Your task to perform on an android device: Show the shopping cart on newegg.com. Add macbook pro to the cart on newegg.com, then select checkout. Image 0: 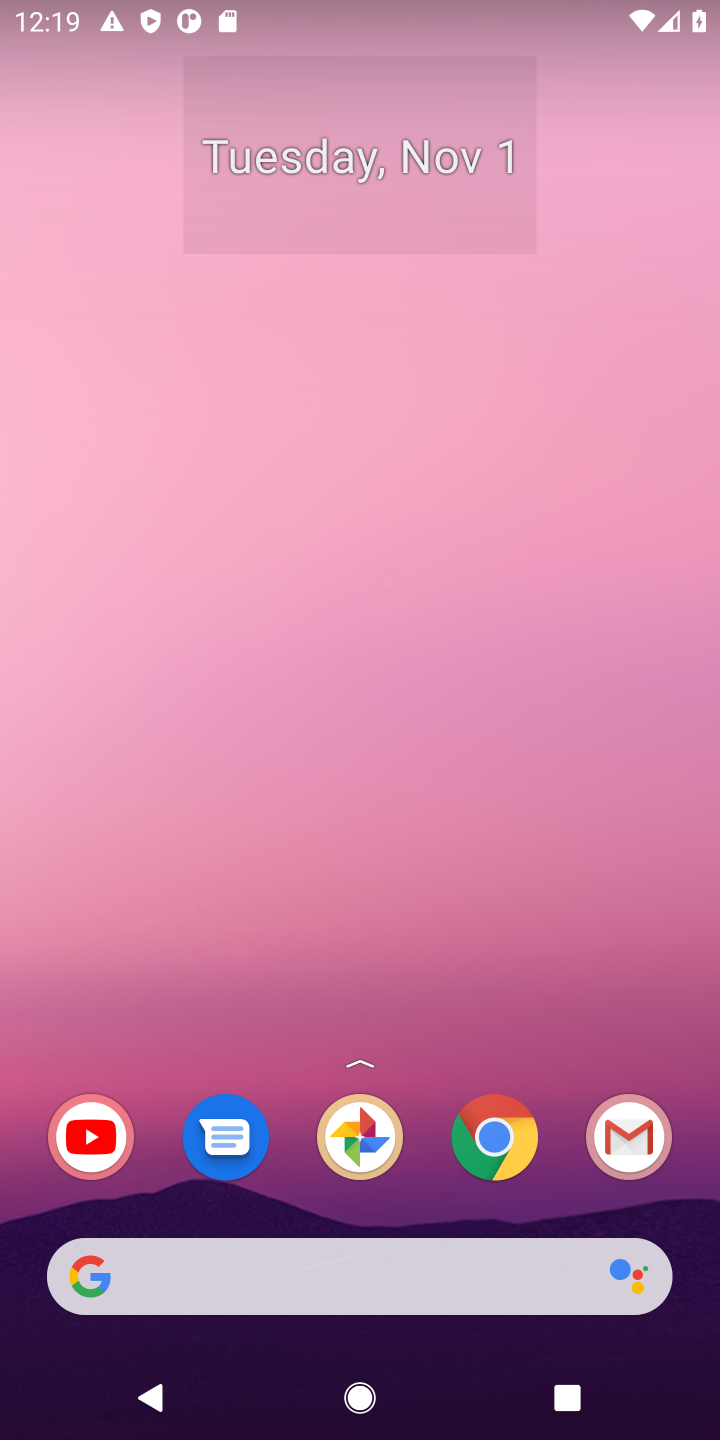
Step 0: click (513, 1144)
Your task to perform on an android device: Show the shopping cart on newegg.com. Add macbook pro to the cart on newegg.com, then select checkout. Image 1: 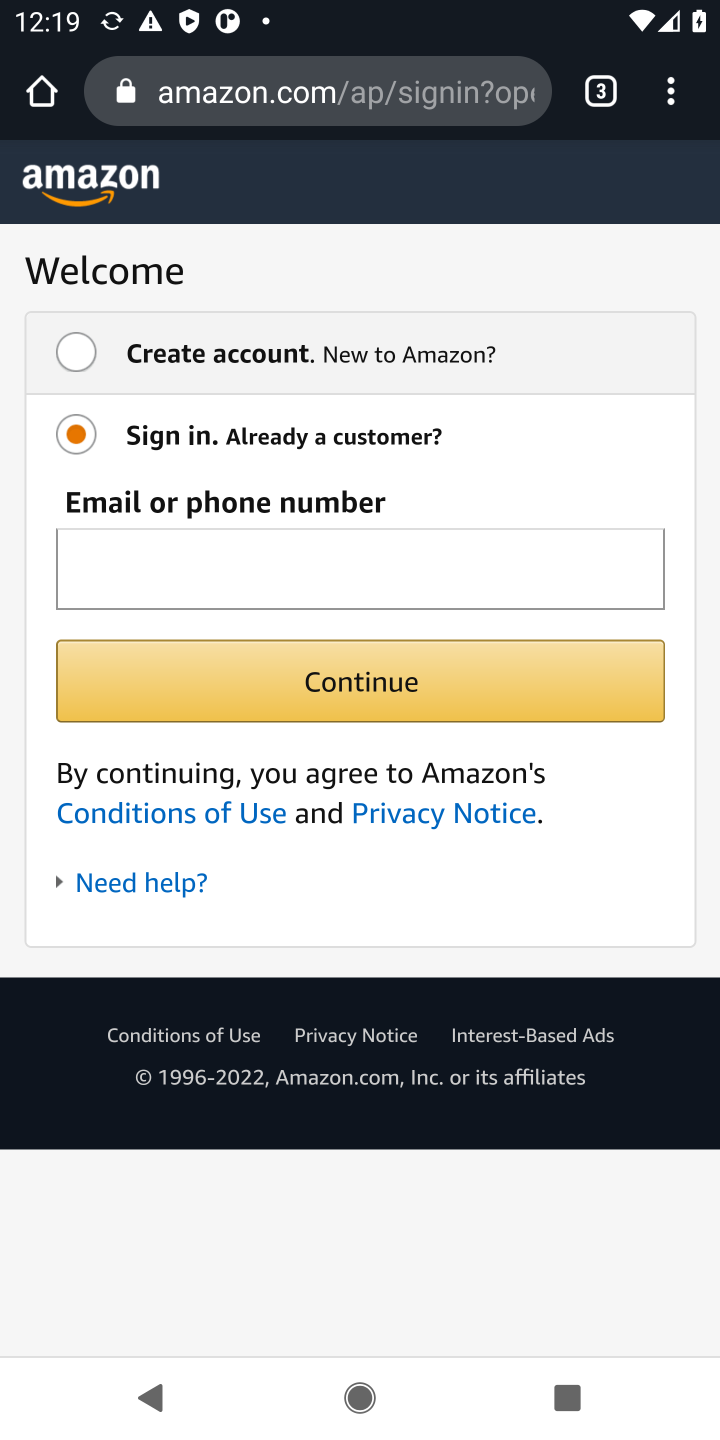
Step 1: click (617, 95)
Your task to perform on an android device: Show the shopping cart on newegg.com. Add macbook pro to the cart on newegg.com, then select checkout. Image 2: 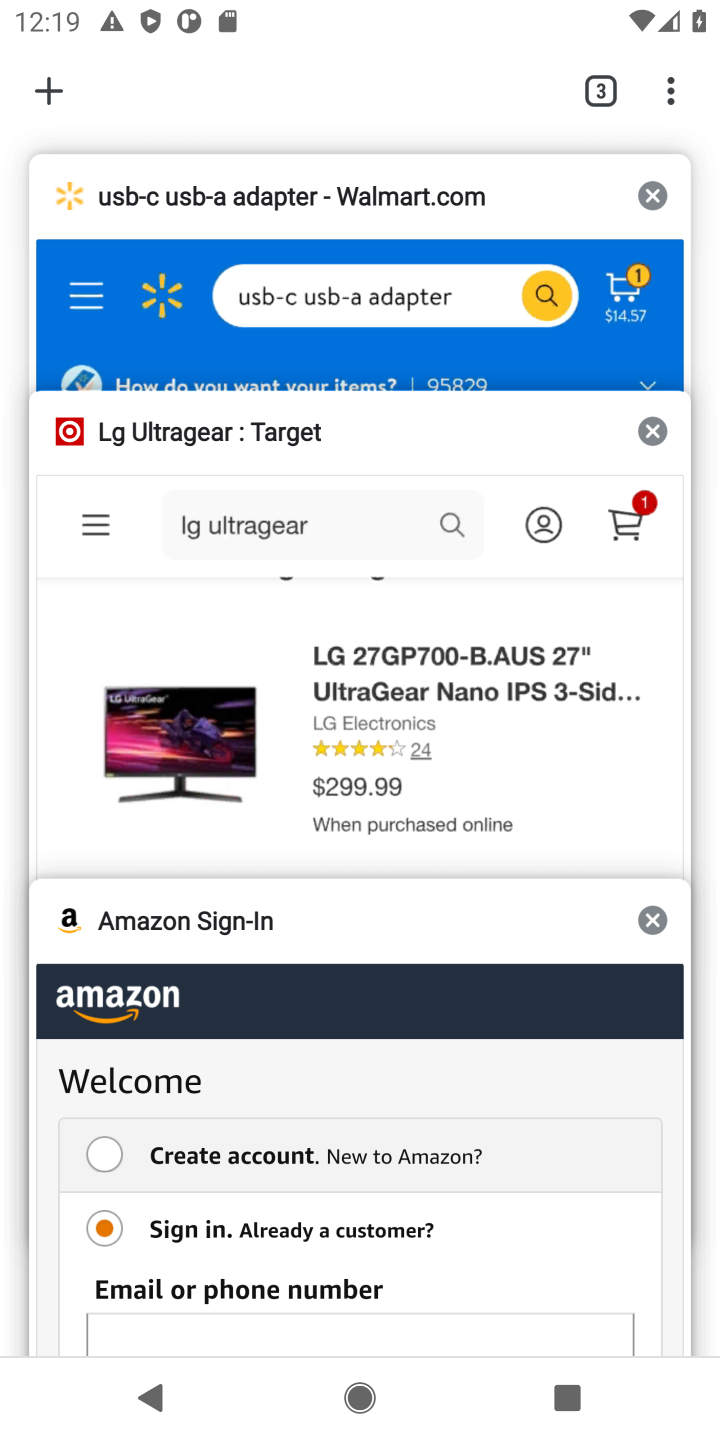
Step 2: click (40, 95)
Your task to perform on an android device: Show the shopping cart on newegg.com. Add macbook pro to the cart on newegg.com, then select checkout. Image 3: 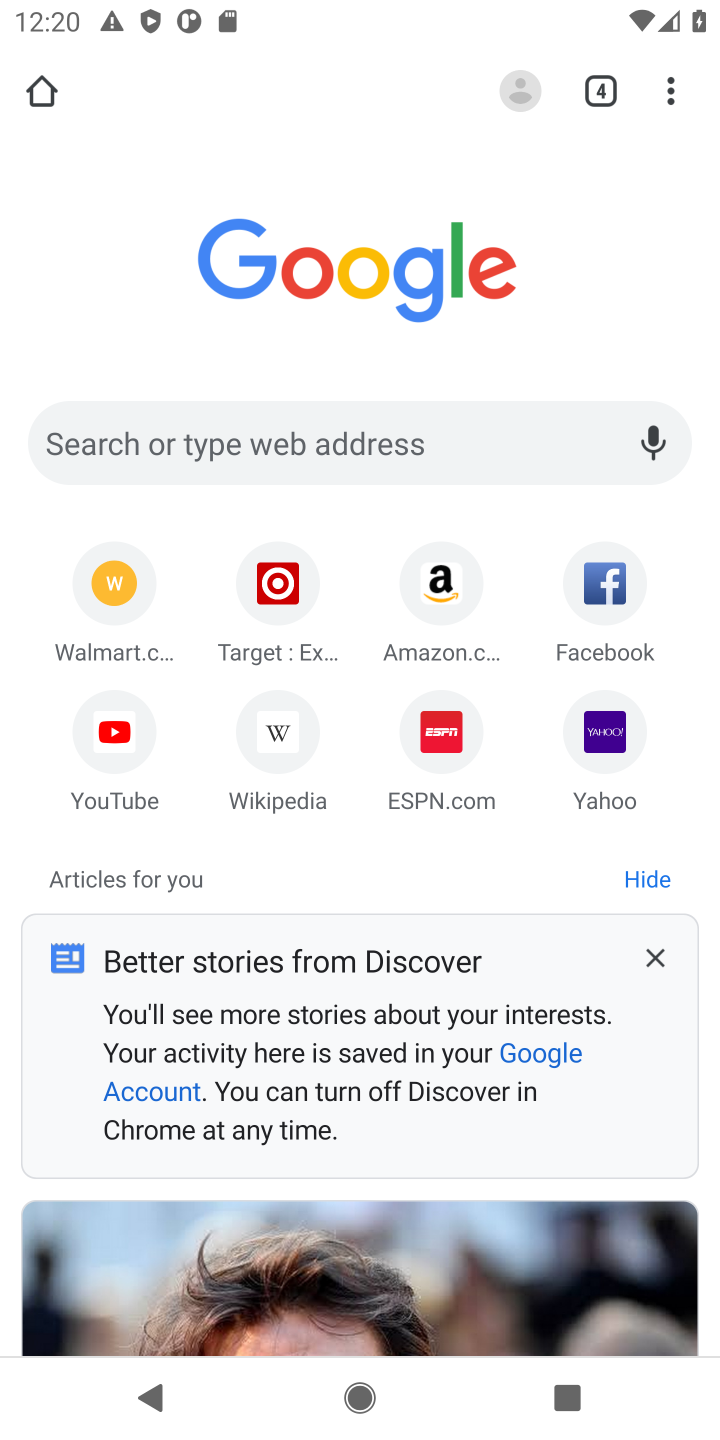
Step 3: click (43, 96)
Your task to perform on an android device: Show the shopping cart on newegg.com. Add macbook pro to the cart on newegg.com, then select checkout. Image 4: 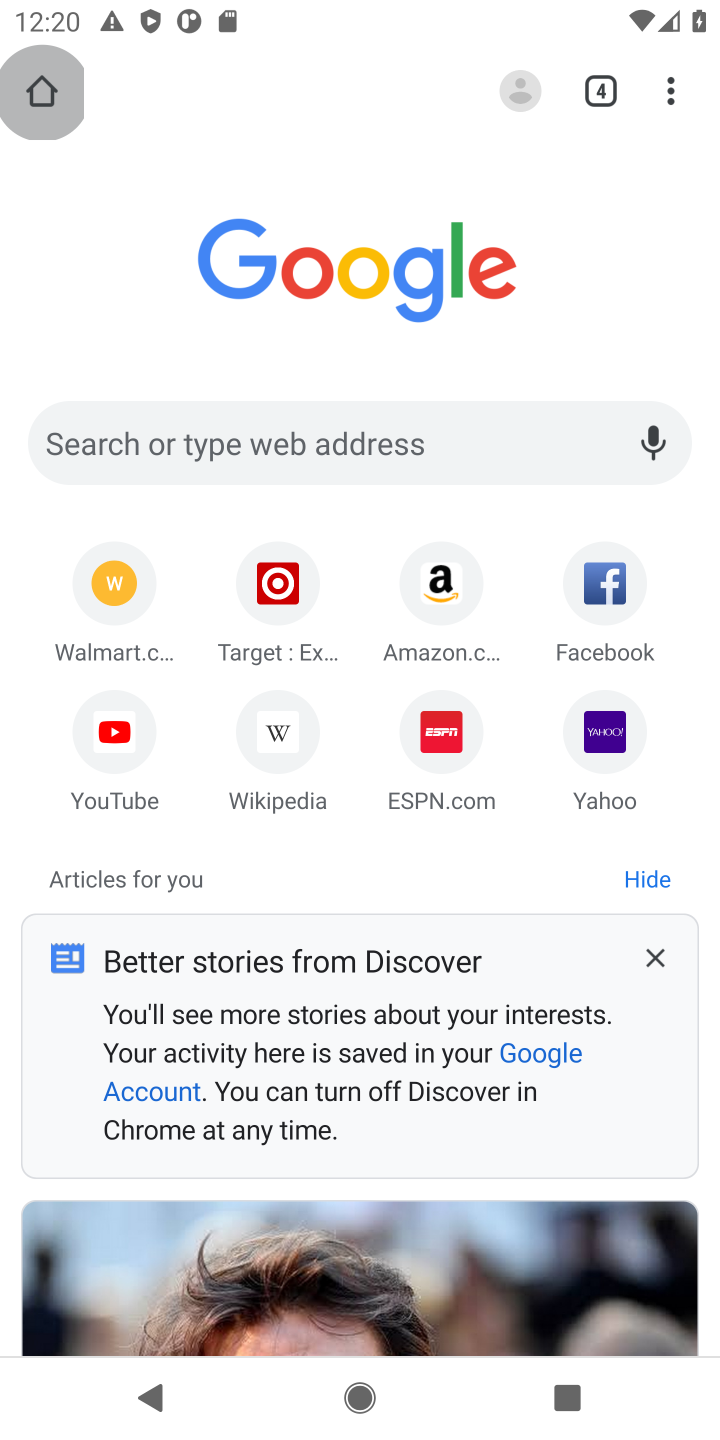
Step 4: click (373, 442)
Your task to perform on an android device: Show the shopping cart on newegg.com. Add macbook pro to the cart on newegg.com, then select checkout. Image 5: 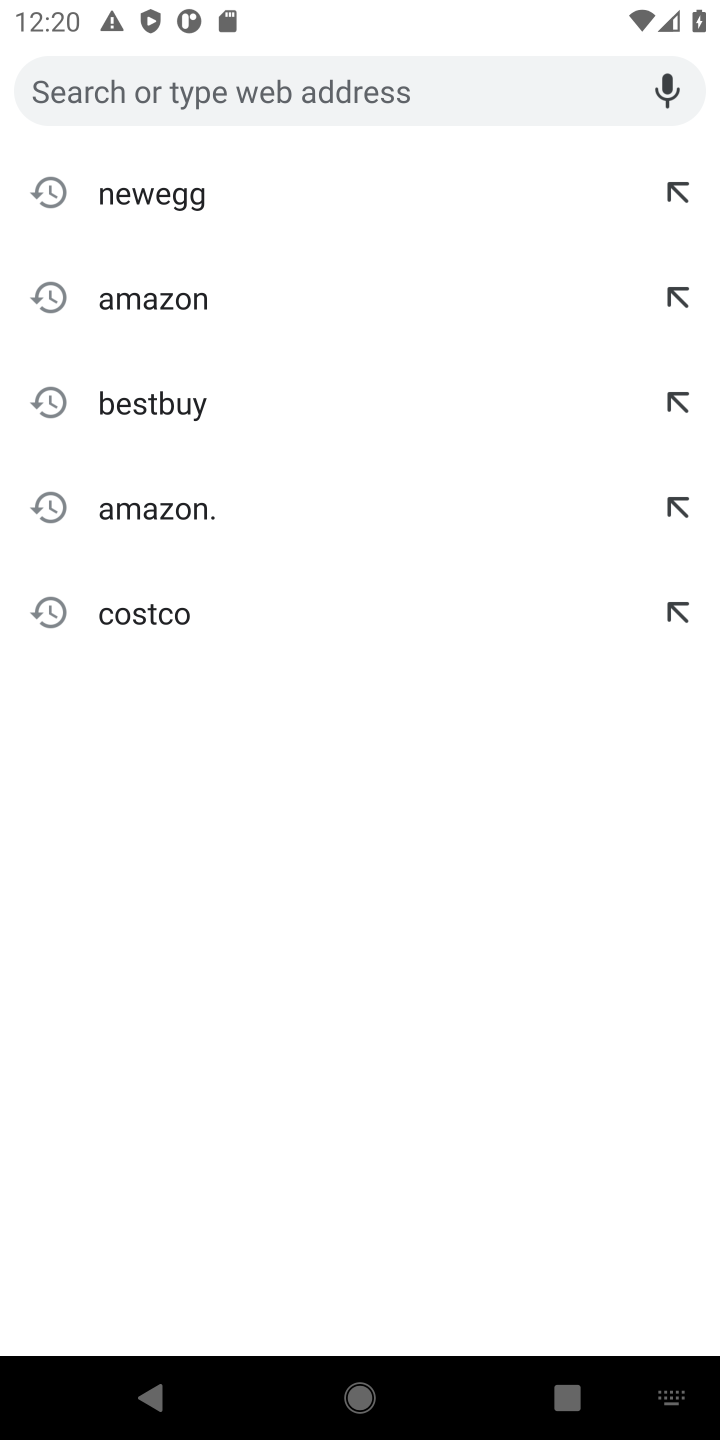
Step 5: type "newegg"
Your task to perform on an android device: Show the shopping cart on newegg.com. Add macbook pro to the cart on newegg.com, then select checkout. Image 6: 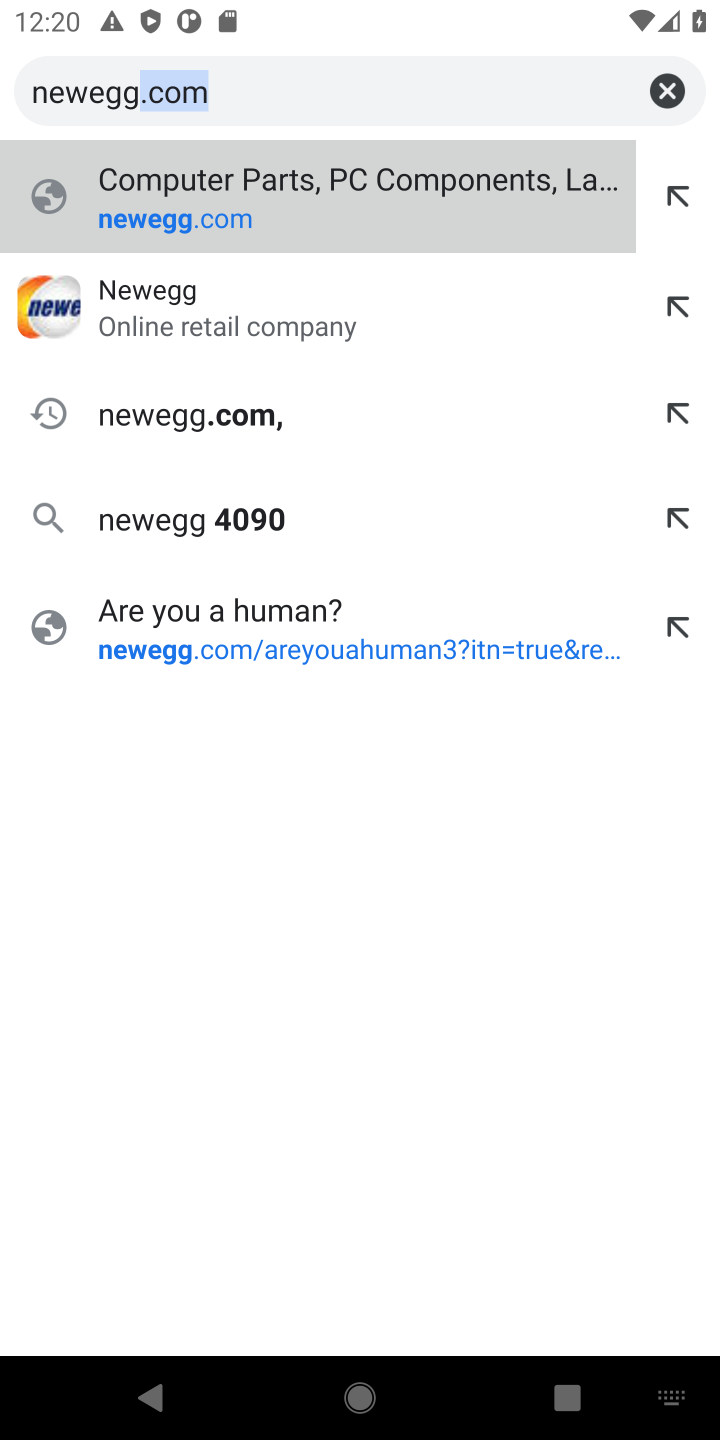
Step 6: click (254, 313)
Your task to perform on an android device: Show the shopping cart on newegg.com. Add macbook pro to the cart on newegg.com, then select checkout. Image 7: 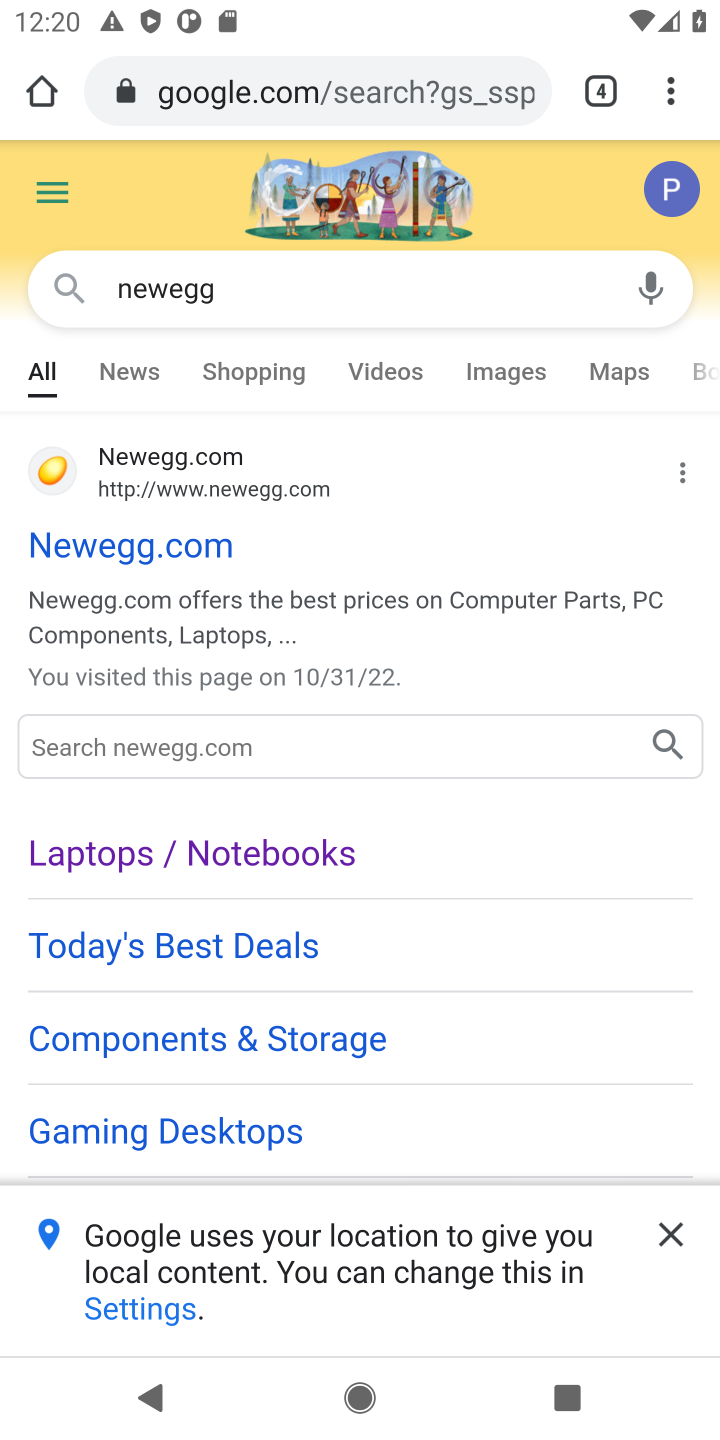
Step 7: click (174, 552)
Your task to perform on an android device: Show the shopping cart on newegg.com. Add macbook pro to the cart on newegg.com, then select checkout. Image 8: 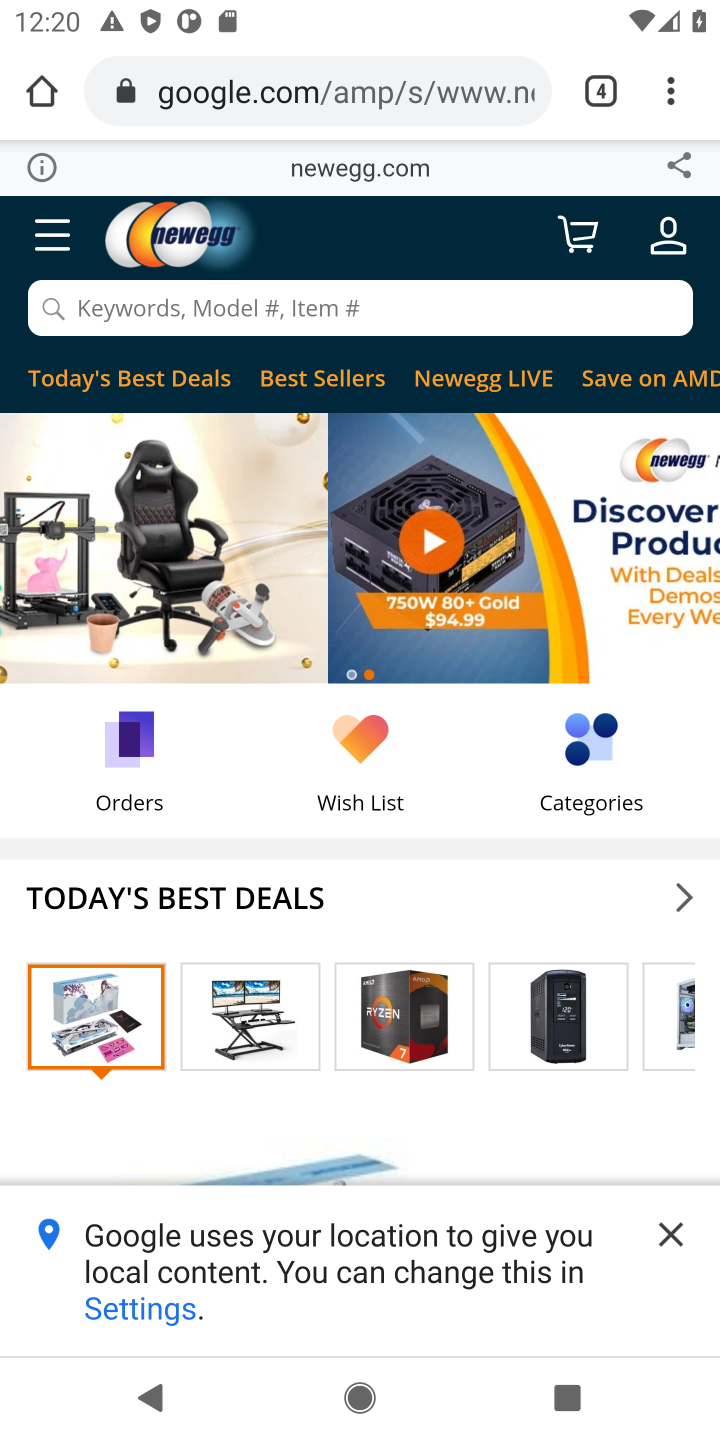
Step 8: click (292, 312)
Your task to perform on an android device: Show the shopping cart on newegg.com. Add macbook pro to the cart on newegg.com, then select checkout. Image 9: 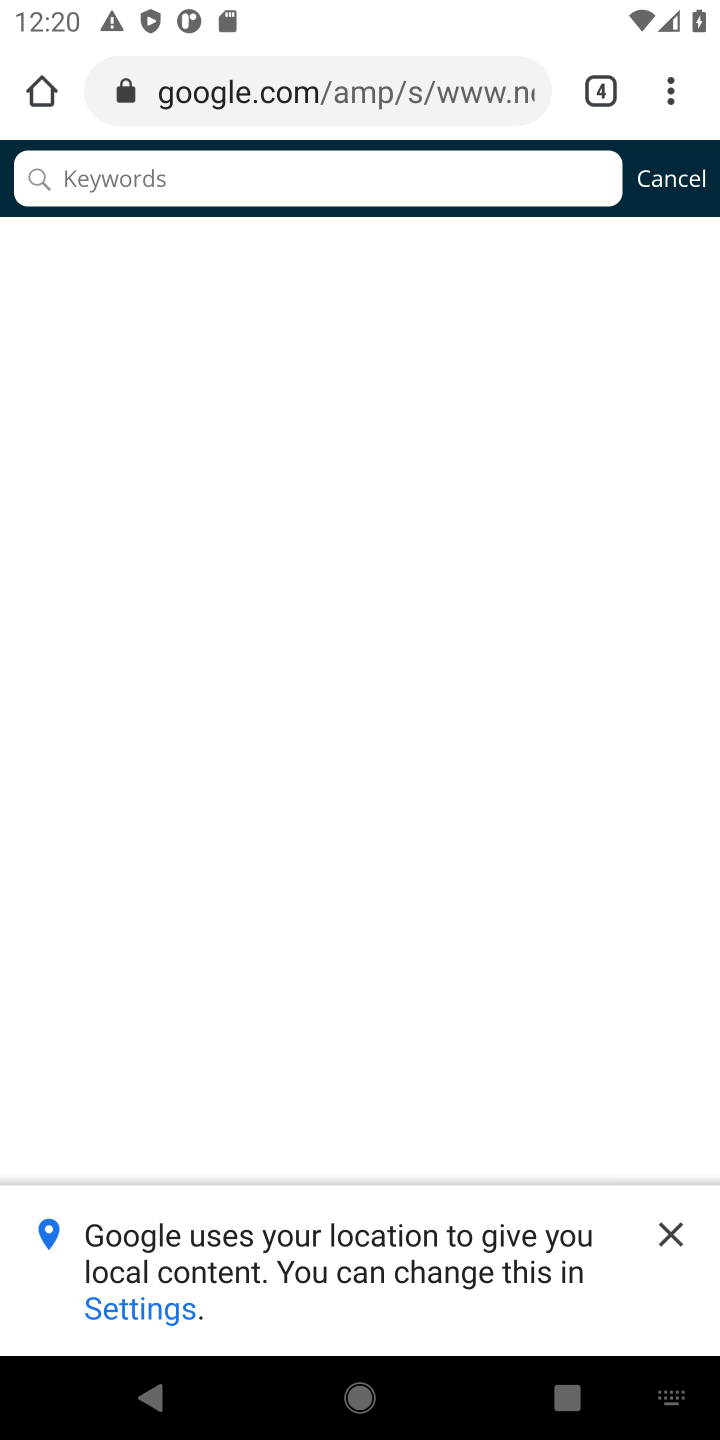
Step 9: type "macbook pro"
Your task to perform on an android device: Show the shopping cart on newegg.com. Add macbook pro to the cart on newegg.com, then select checkout. Image 10: 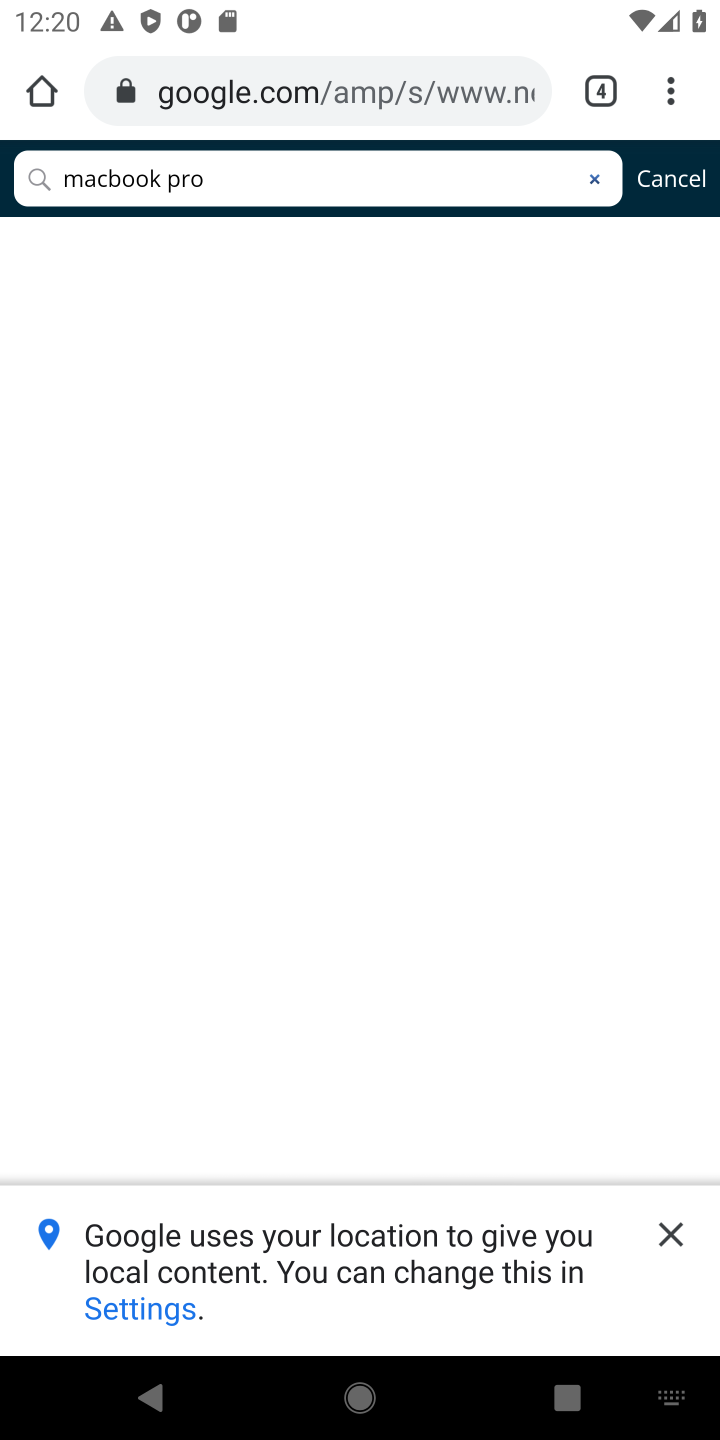
Step 10: click (671, 1234)
Your task to perform on an android device: Show the shopping cart on newegg.com. Add macbook pro to the cart on newegg.com, then select checkout. Image 11: 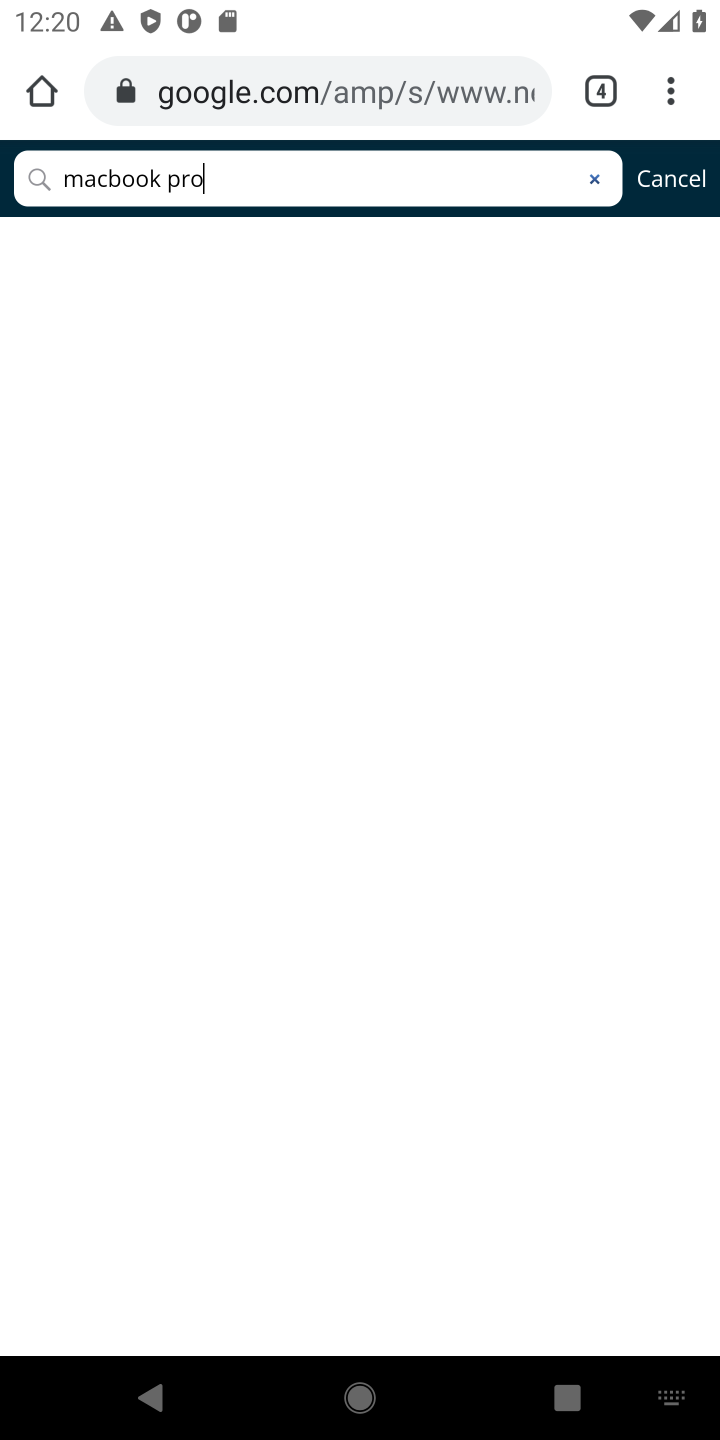
Step 11: click (443, 86)
Your task to perform on an android device: Show the shopping cart on newegg.com. Add macbook pro to the cart on newegg.com, then select checkout. Image 12: 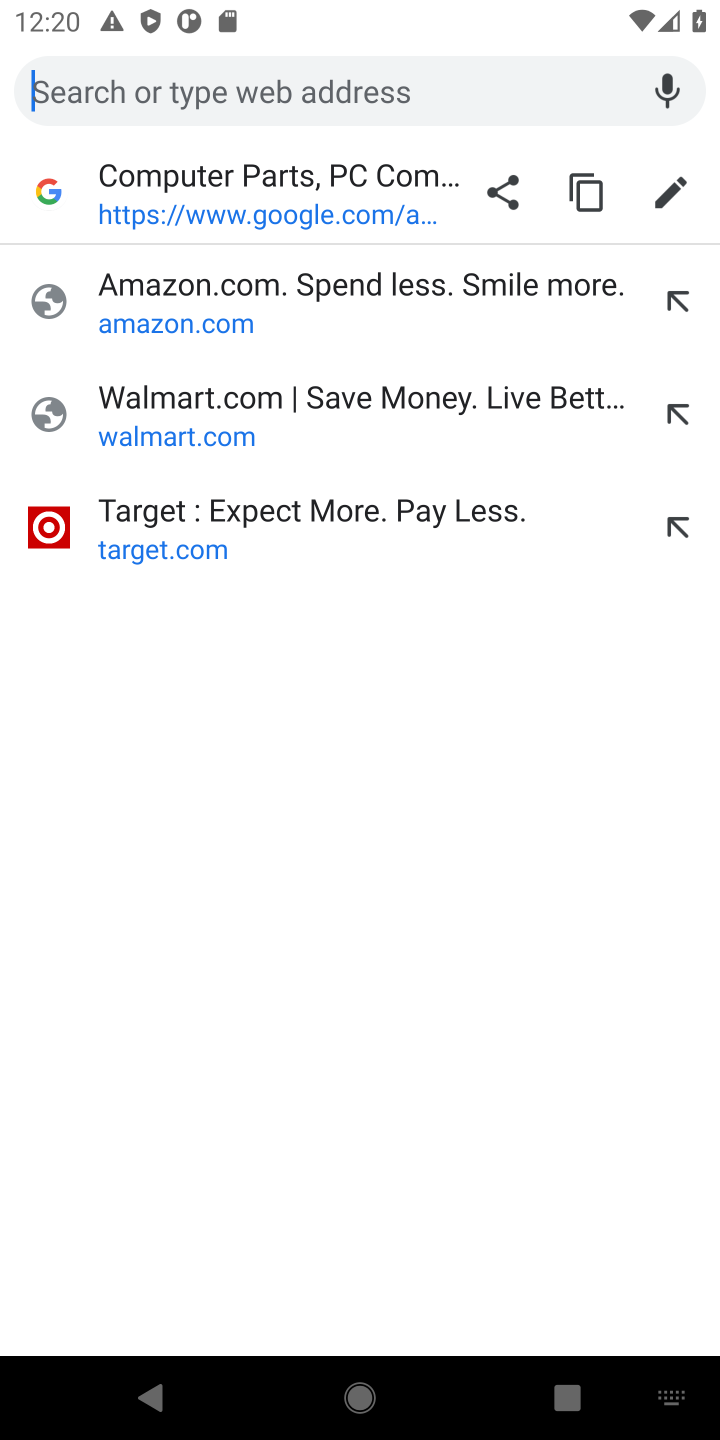
Step 12: type "macbook pro on newegg"
Your task to perform on an android device: Show the shopping cart on newegg.com. Add macbook pro to the cart on newegg.com, then select checkout. Image 13: 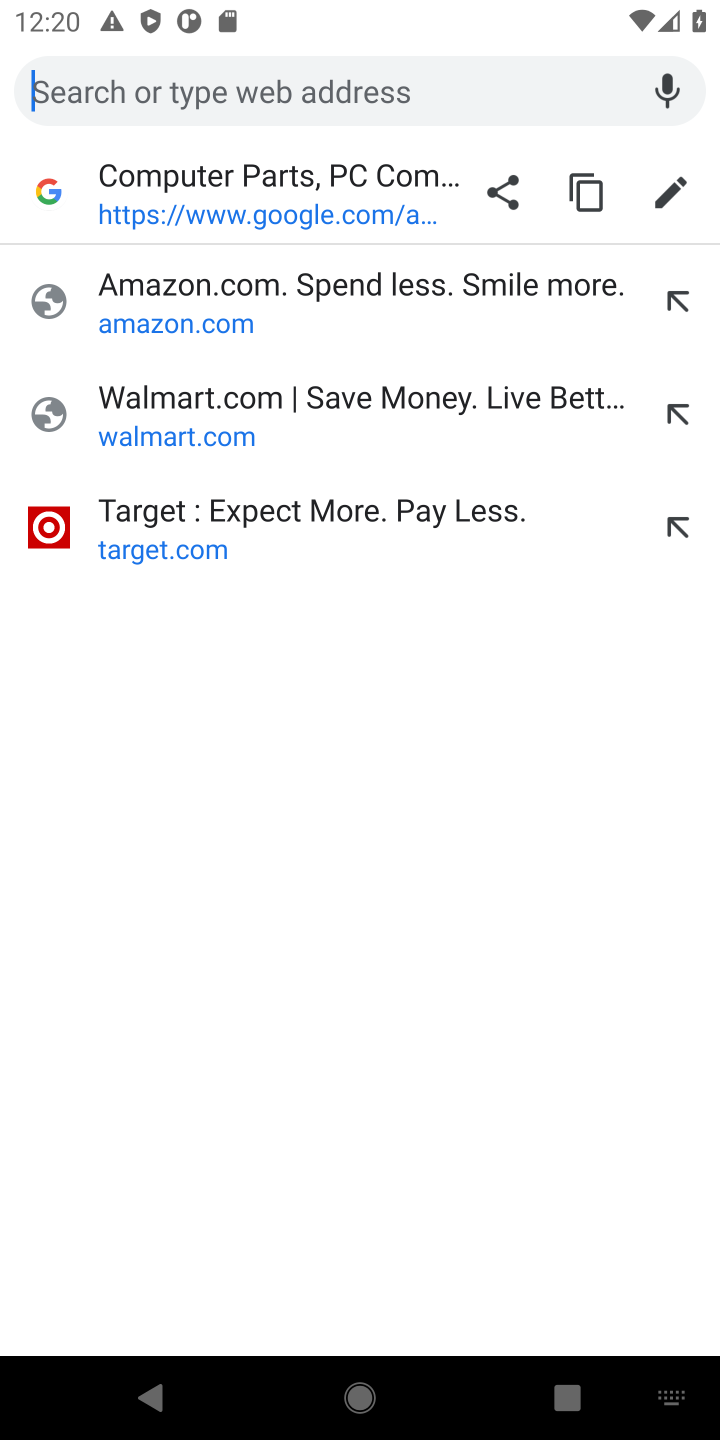
Step 13: click (332, 85)
Your task to perform on an android device: Show the shopping cart on newegg.com. Add macbook pro to the cart on newegg.com, then select checkout. Image 14: 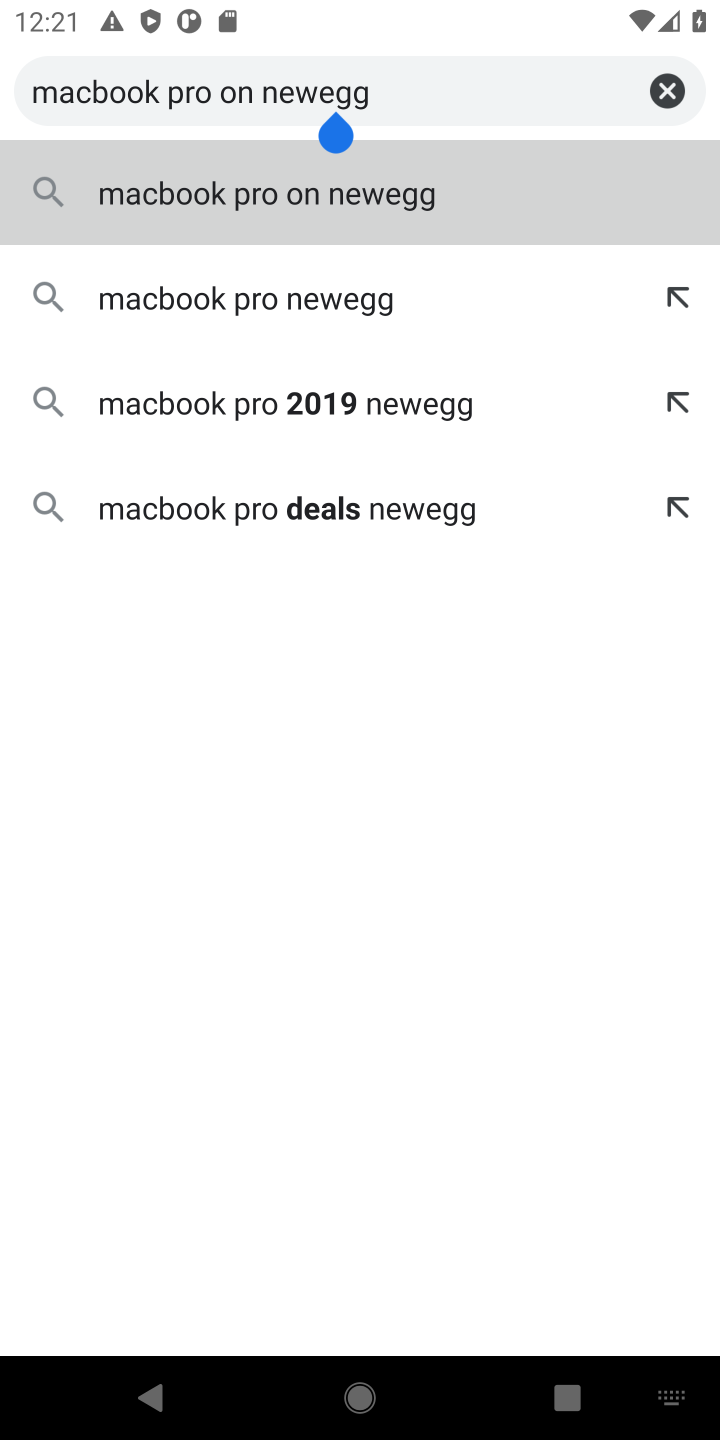
Step 14: type "macbook pro on n"
Your task to perform on an android device: Show the shopping cart on newegg.com. Add macbook pro to the cart on newegg.com, then select checkout. Image 15: 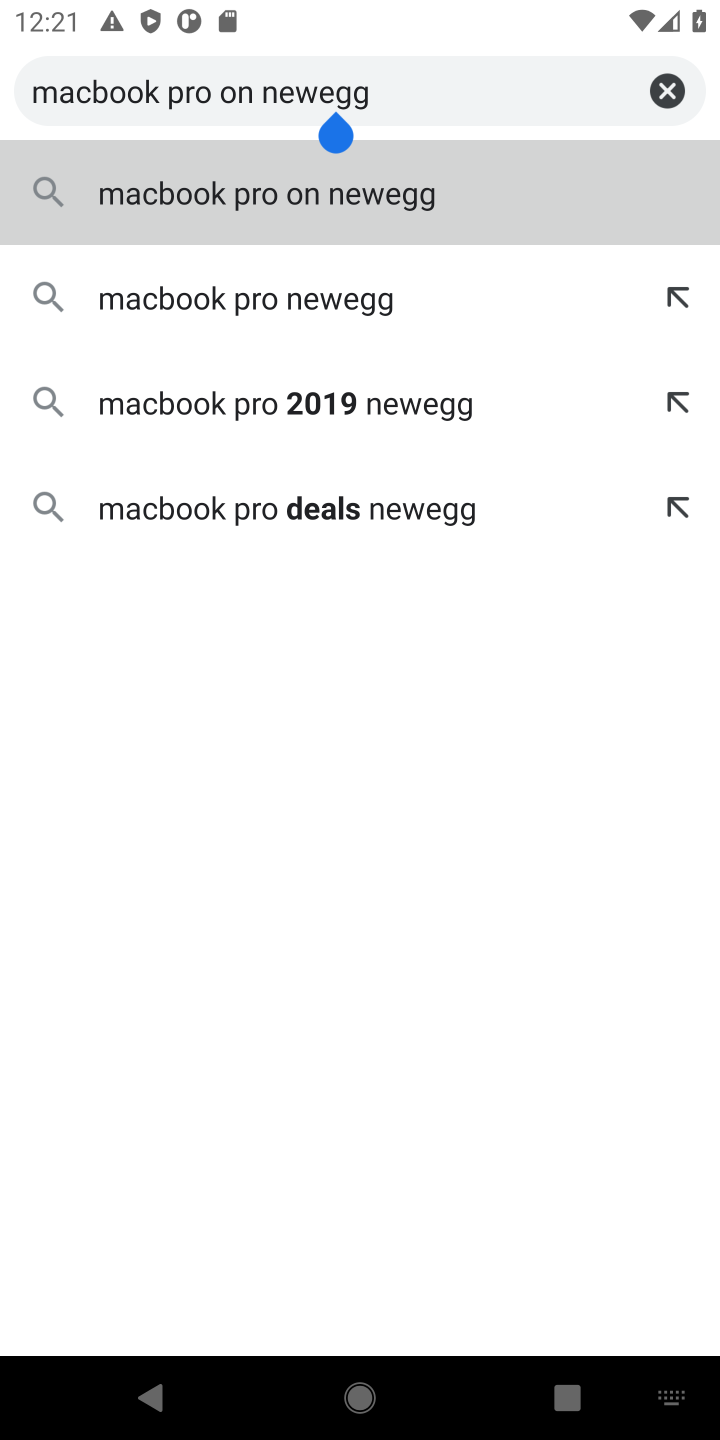
Step 15: click (380, 207)
Your task to perform on an android device: Show the shopping cart on newegg.com. Add macbook pro to the cart on newegg.com, then select checkout. Image 16: 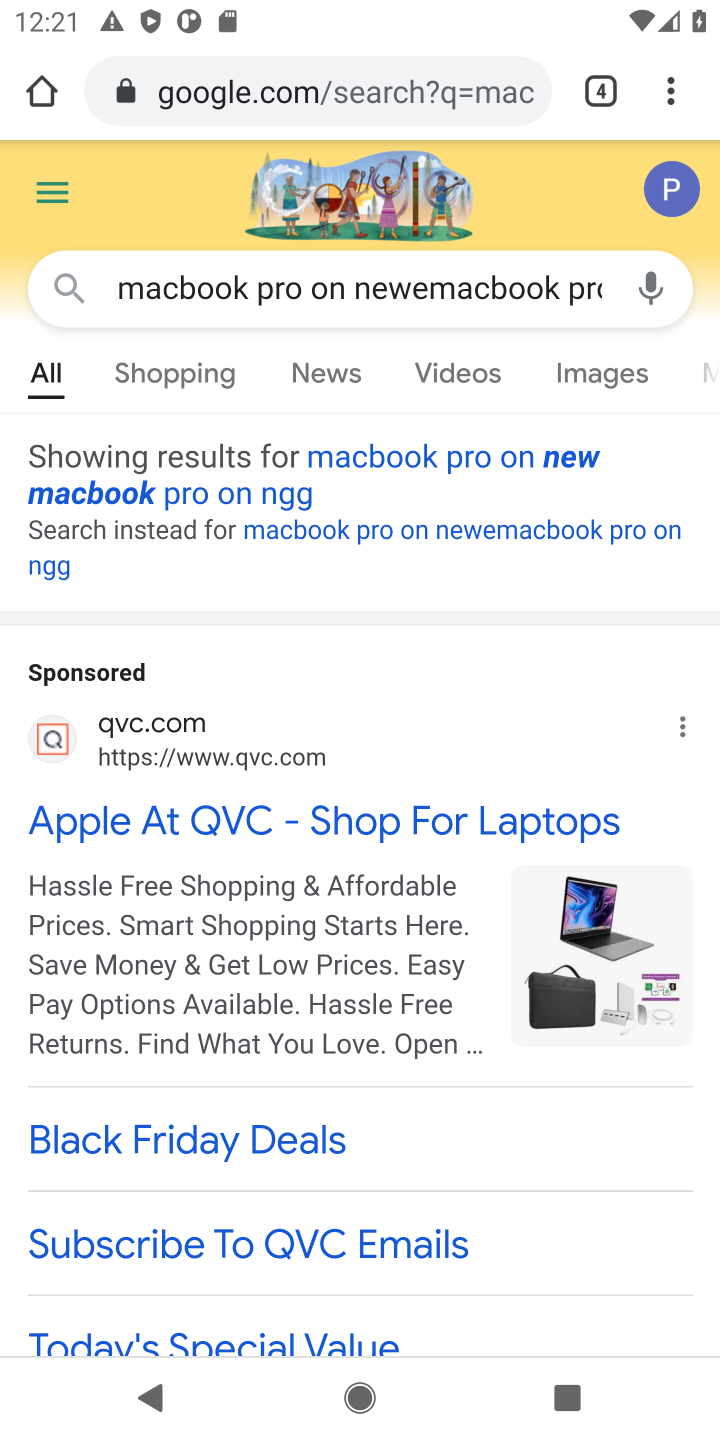
Step 16: click (342, 451)
Your task to perform on an android device: Show the shopping cart on newegg.com. Add macbook pro to the cart on newegg.com, then select checkout. Image 17: 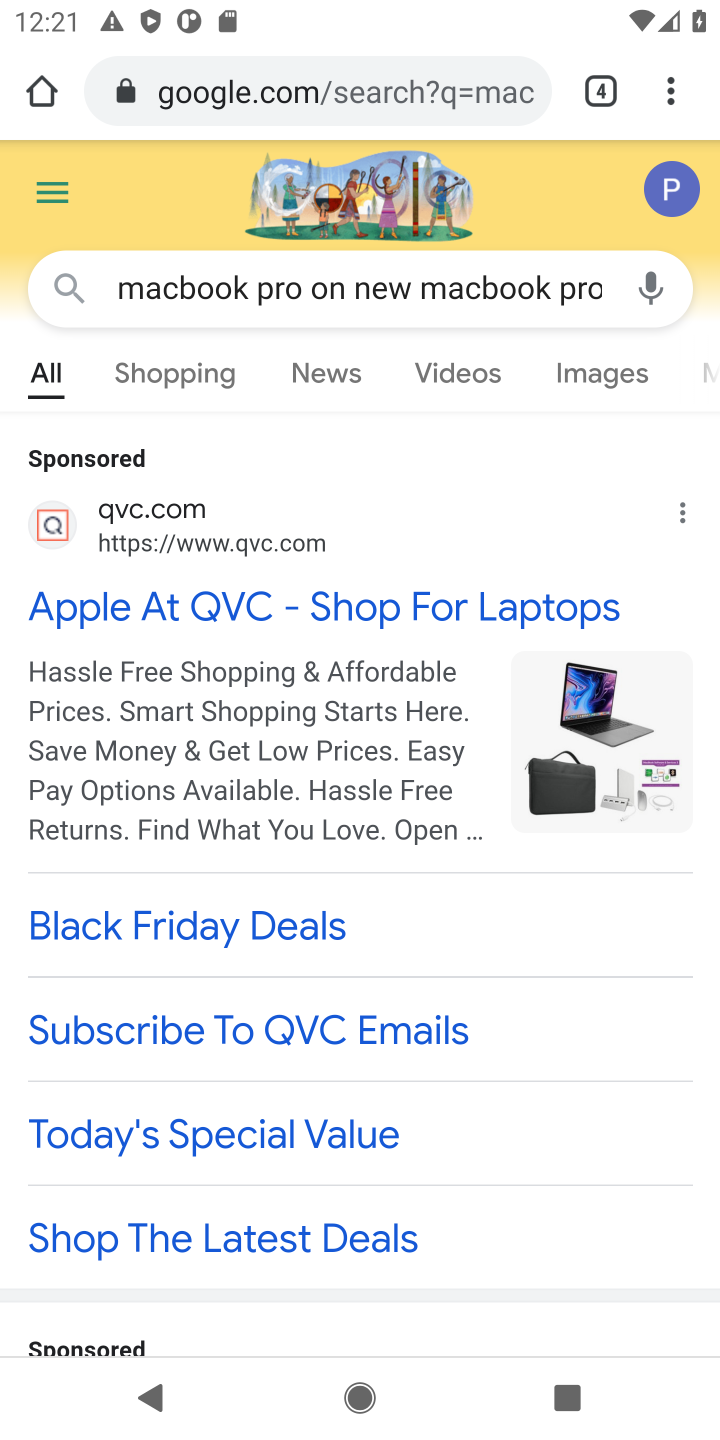
Step 17: click (169, 372)
Your task to perform on an android device: Show the shopping cart on newegg.com. Add macbook pro to the cart on newegg.com, then select checkout. Image 18: 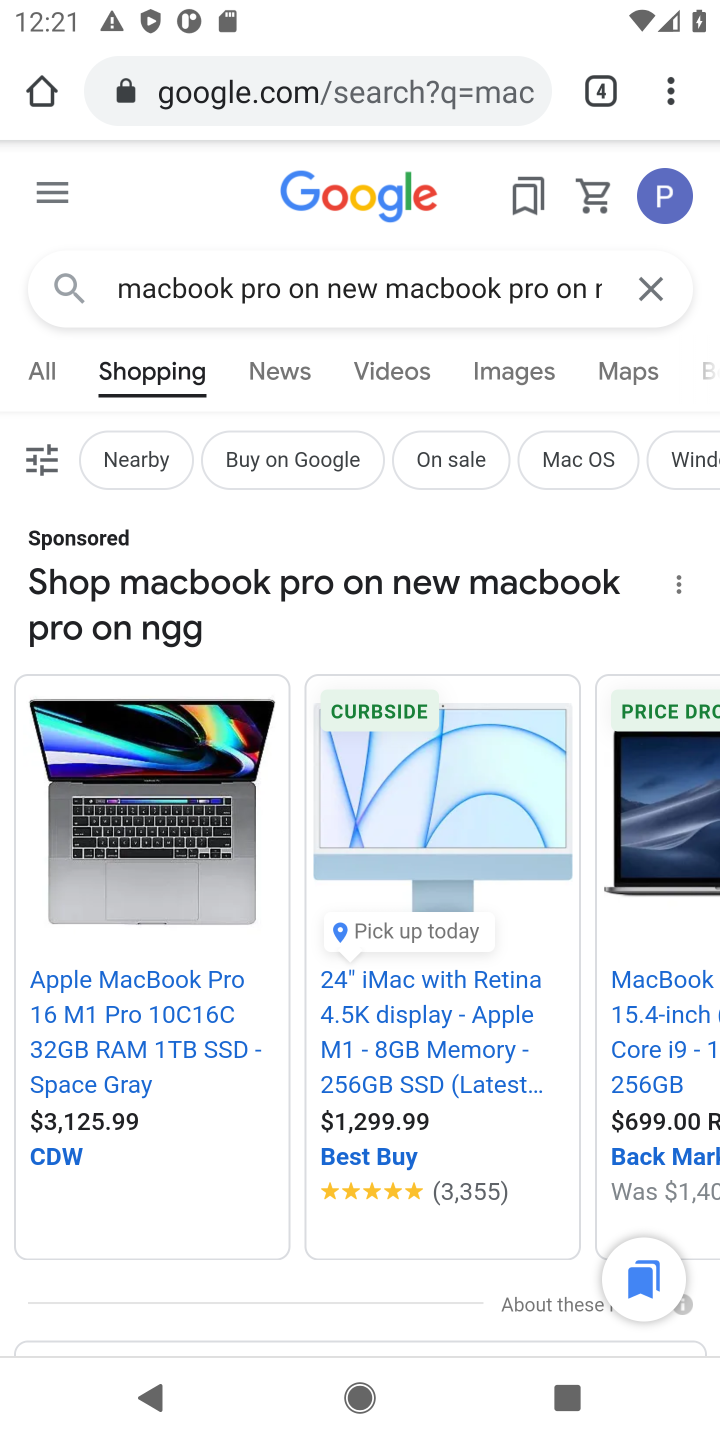
Step 18: task complete